Your task to perform on an android device: Open the phone app and click the voicemail tab. Image 0: 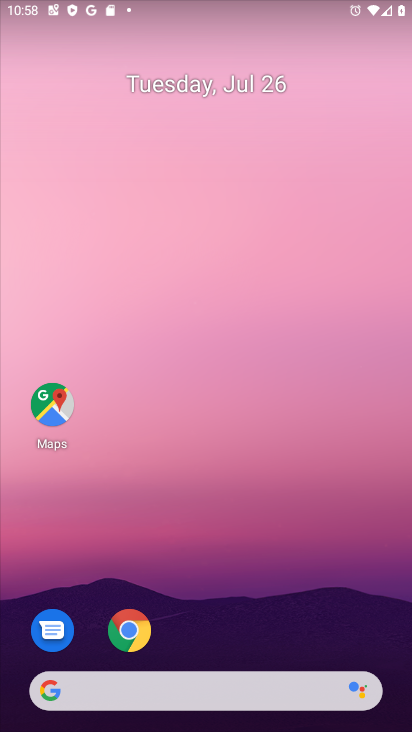
Step 0: drag from (133, 596) to (213, 62)
Your task to perform on an android device: Open the phone app and click the voicemail tab. Image 1: 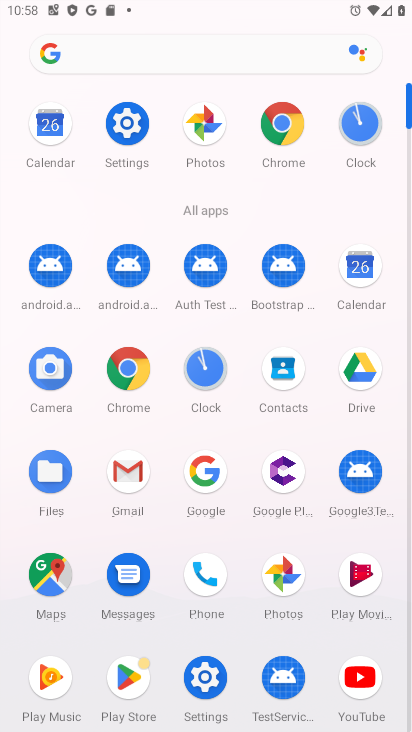
Step 1: click (209, 578)
Your task to perform on an android device: Open the phone app and click the voicemail tab. Image 2: 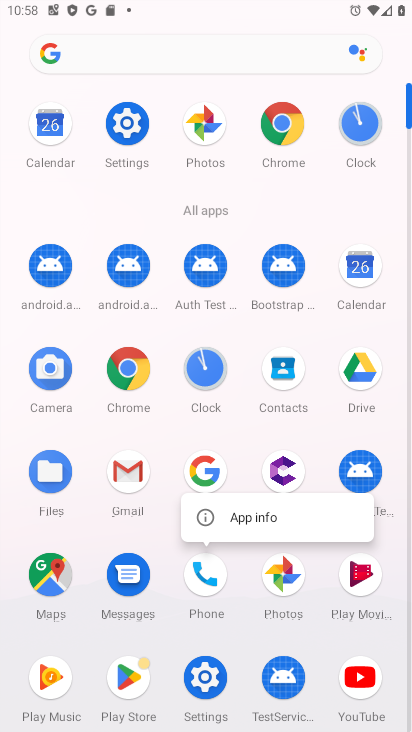
Step 2: click (209, 578)
Your task to perform on an android device: Open the phone app and click the voicemail tab. Image 3: 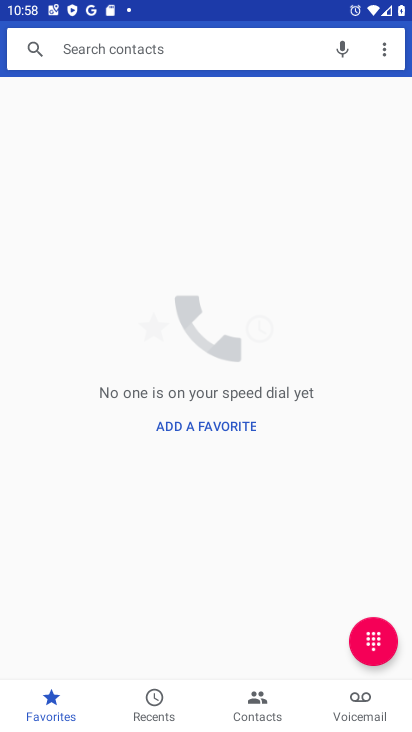
Step 3: click (367, 702)
Your task to perform on an android device: Open the phone app and click the voicemail tab. Image 4: 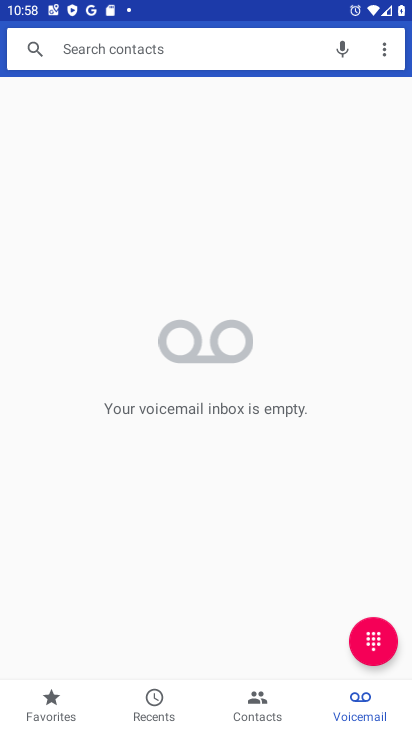
Step 4: task complete